Your task to perform on an android device: Search for Mexican restaurants on Maps Image 0: 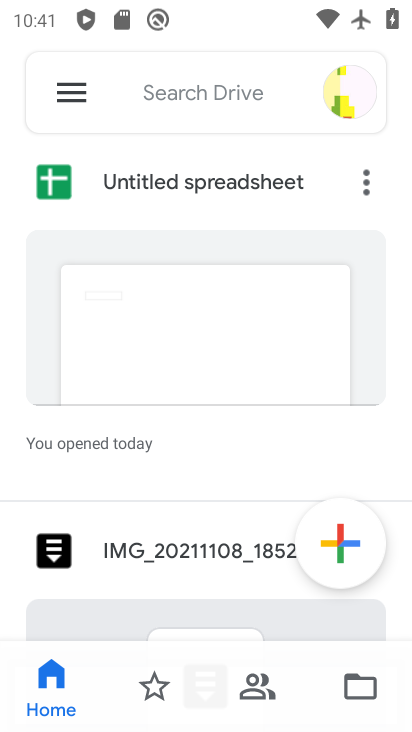
Step 0: press back button
Your task to perform on an android device: Search for Mexican restaurants on Maps Image 1: 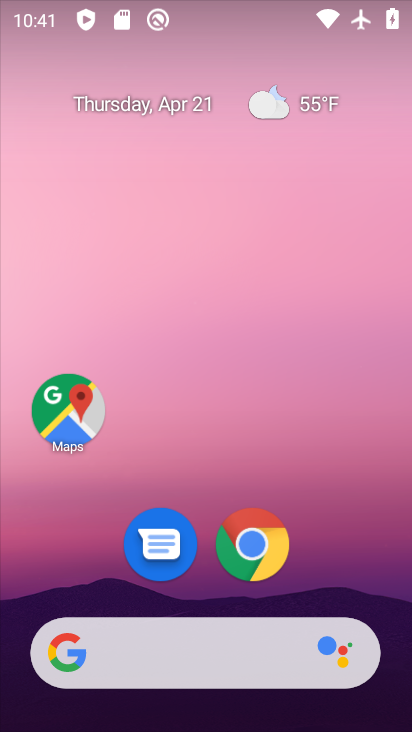
Step 1: drag from (380, 518) to (232, 12)
Your task to perform on an android device: Search for Mexican restaurants on Maps Image 2: 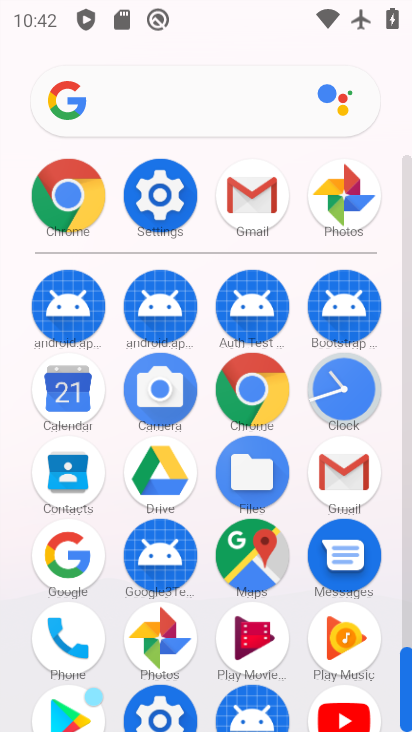
Step 2: drag from (6, 487) to (0, 199)
Your task to perform on an android device: Search for Mexican restaurants on Maps Image 3: 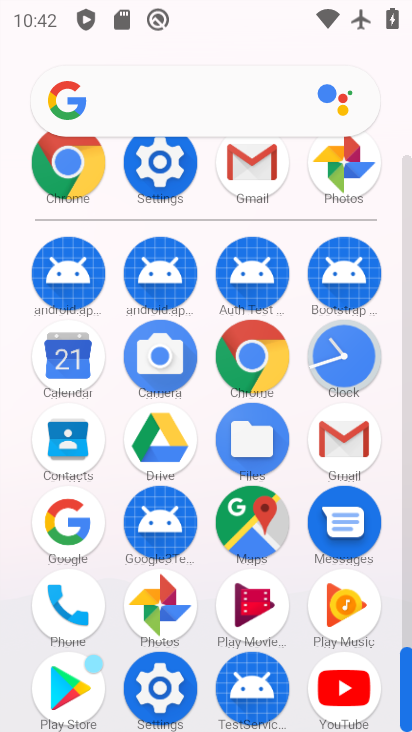
Step 3: click (249, 510)
Your task to perform on an android device: Search for Mexican restaurants on Maps Image 4: 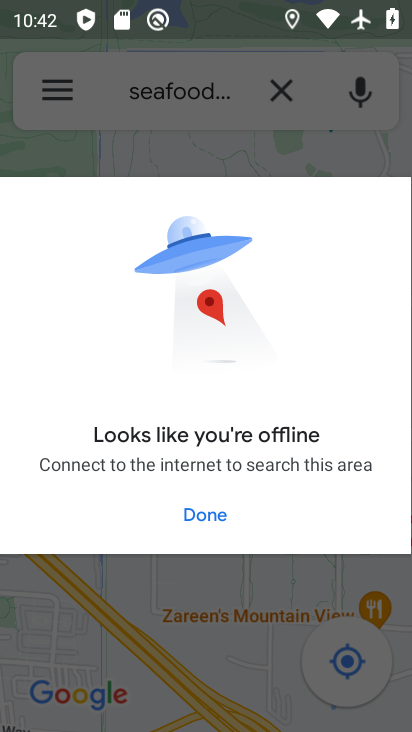
Step 4: click (205, 510)
Your task to perform on an android device: Search for Mexican restaurants on Maps Image 5: 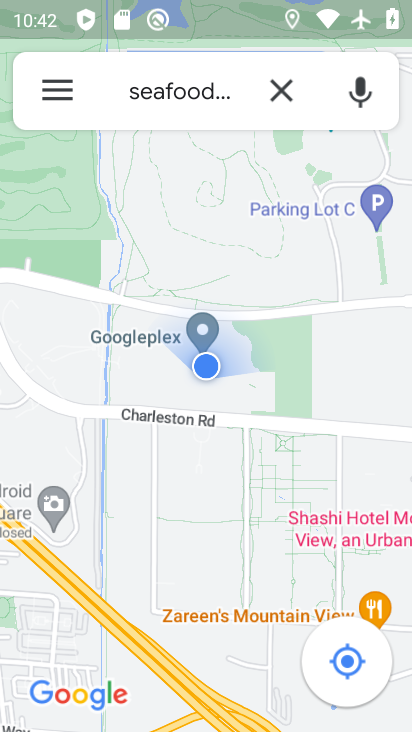
Step 5: click (272, 95)
Your task to perform on an android device: Search for Mexican restaurants on Maps Image 6: 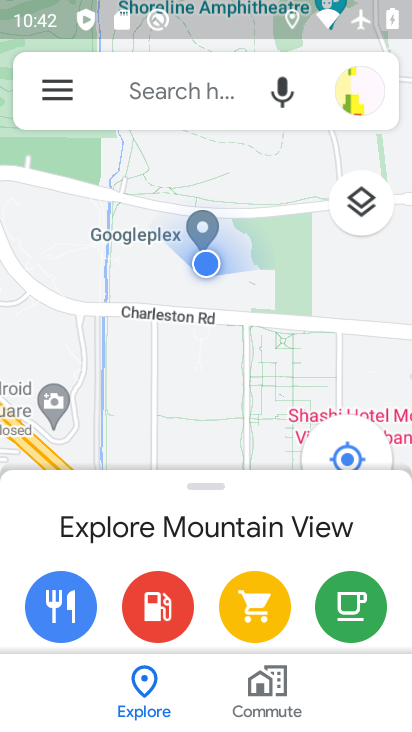
Step 6: click (226, 95)
Your task to perform on an android device: Search for Mexican restaurants on Maps Image 7: 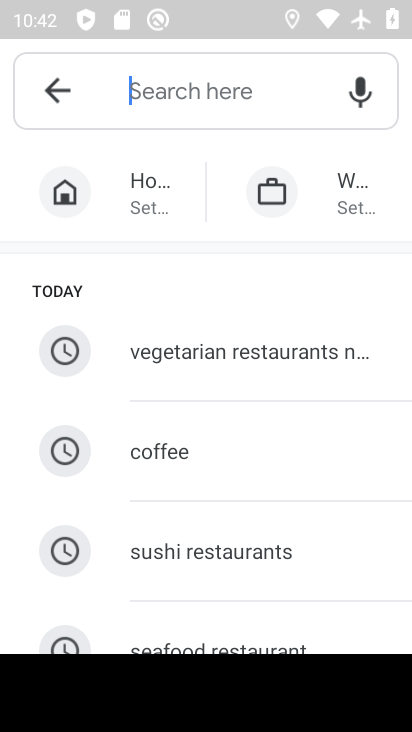
Step 7: type "Mexican restaurants"
Your task to perform on an android device: Search for Mexican restaurants on Maps Image 8: 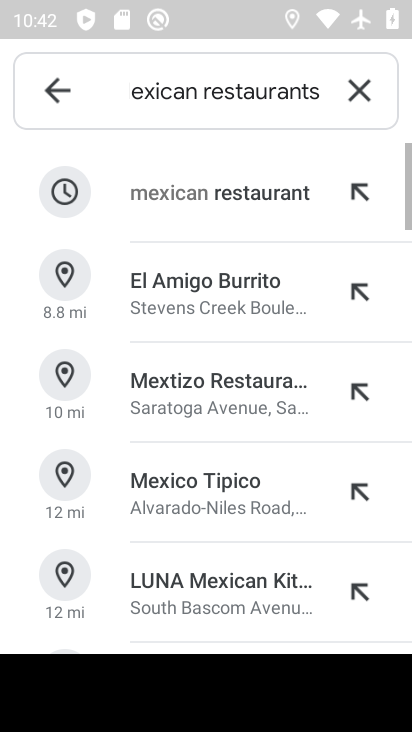
Step 8: click (185, 194)
Your task to perform on an android device: Search for Mexican restaurants on Maps Image 9: 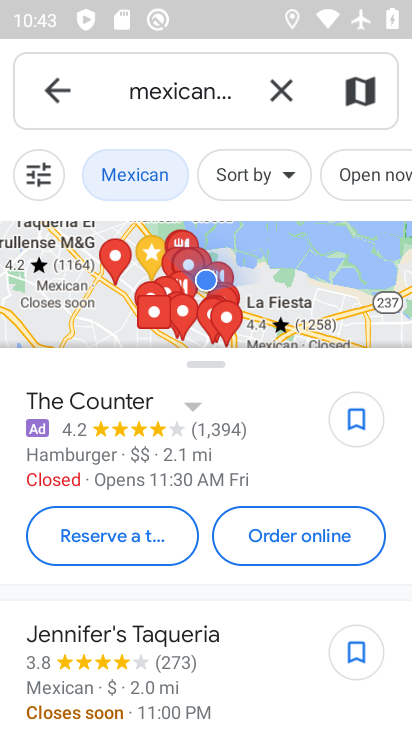
Step 9: task complete